Your task to perform on an android device: turn off airplane mode Image 0: 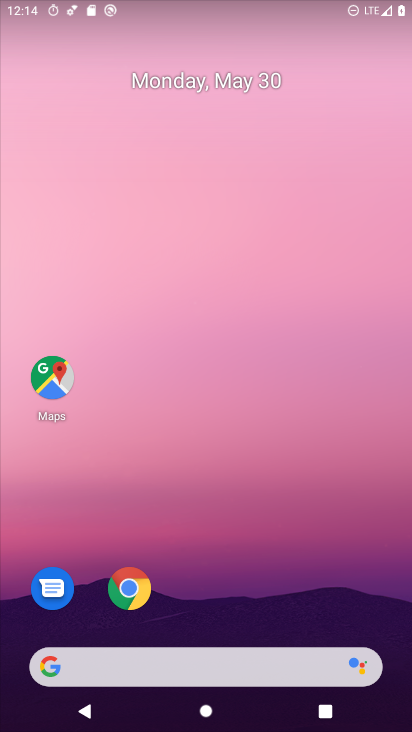
Step 0: drag from (263, 586) to (281, 199)
Your task to perform on an android device: turn off airplane mode Image 1: 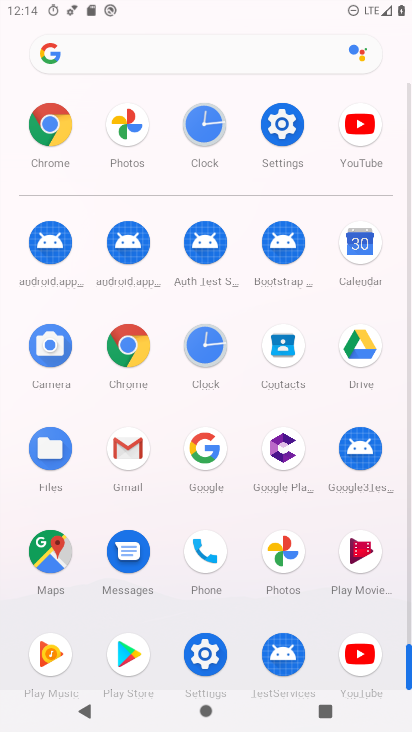
Step 1: click (216, 657)
Your task to perform on an android device: turn off airplane mode Image 2: 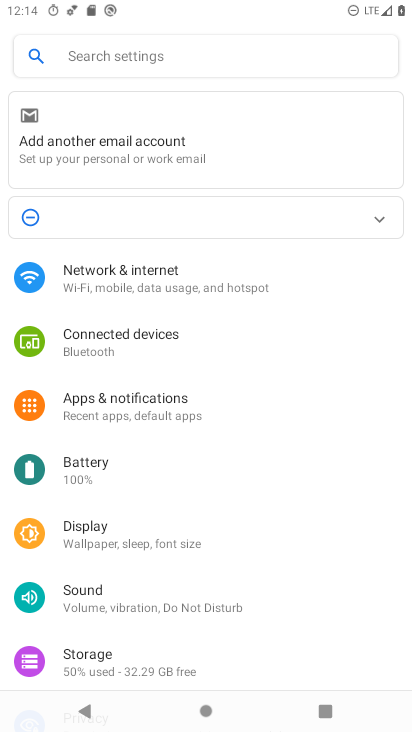
Step 2: click (224, 299)
Your task to perform on an android device: turn off airplane mode Image 3: 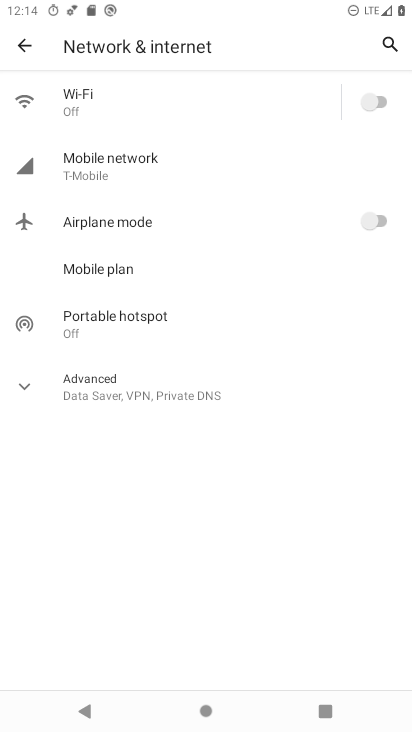
Step 3: task complete